Your task to perform on an android device: delete location history Image 0: 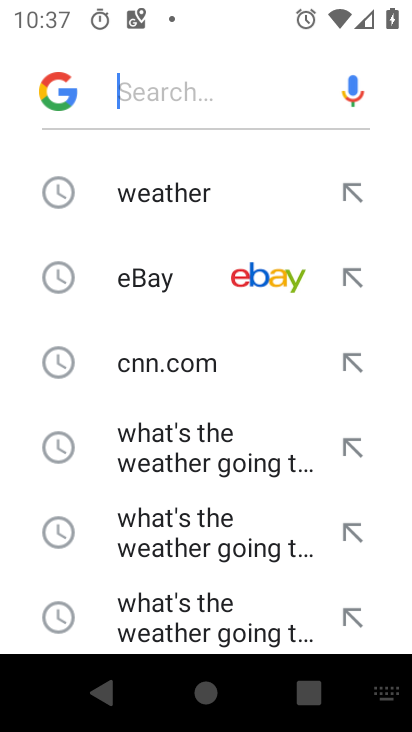
Step 0: press back button
Your task to perform on an android device: delete location history Image 1: 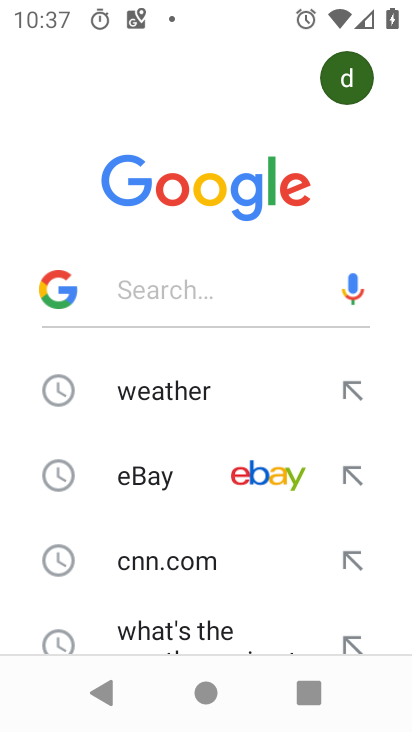
Step 1: press back button
Your task to perform on an android device: delete location history Image 2: 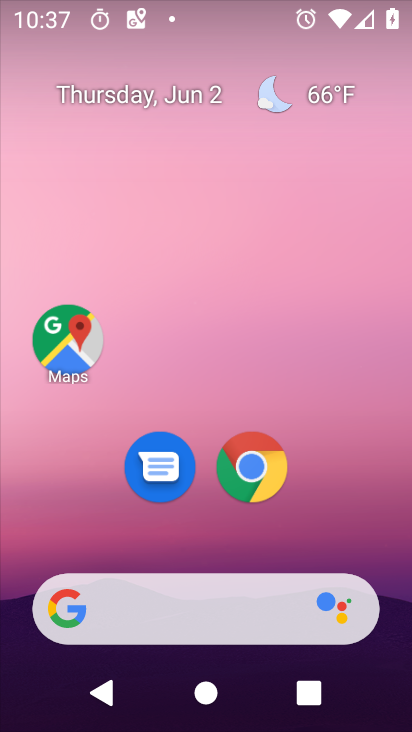
Step 2: drag from (3, 506) to (310, 109)
Your task to perform on an android device: delete location history Image 3: 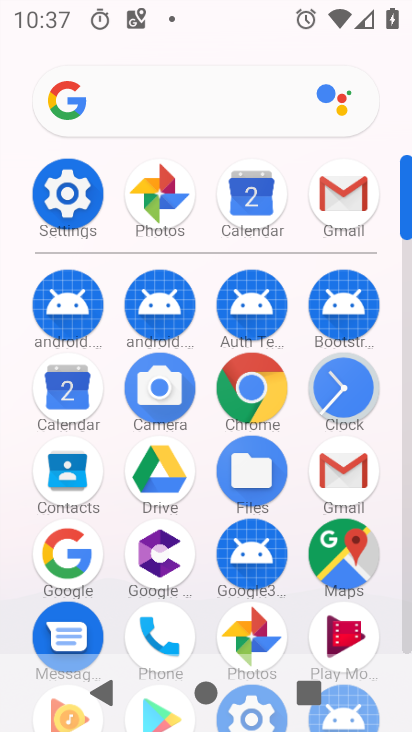
Step 3: click (67, 186)
Your task to perform on an android device: delete location history Image 4: 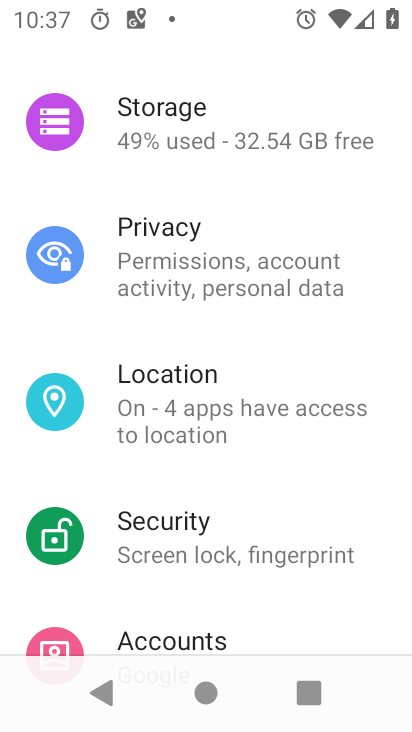
Step 4: click (155, 404)
Your task to perform on an android device: delete location history Image 5: 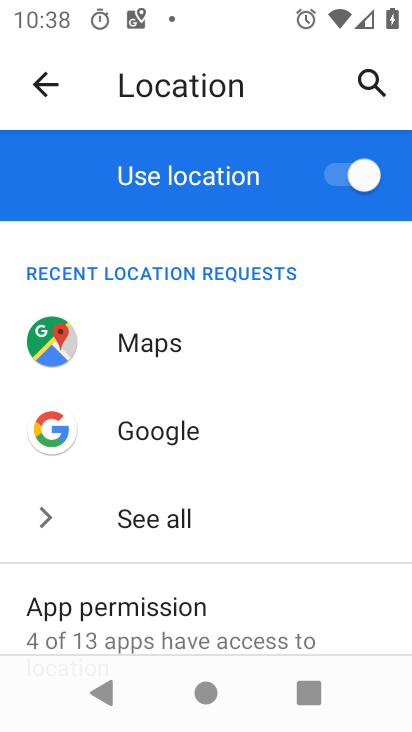
Step 5: drag from (39, 473) to (234, 142)
Your task to perform on an android device: delete location history Image 6: 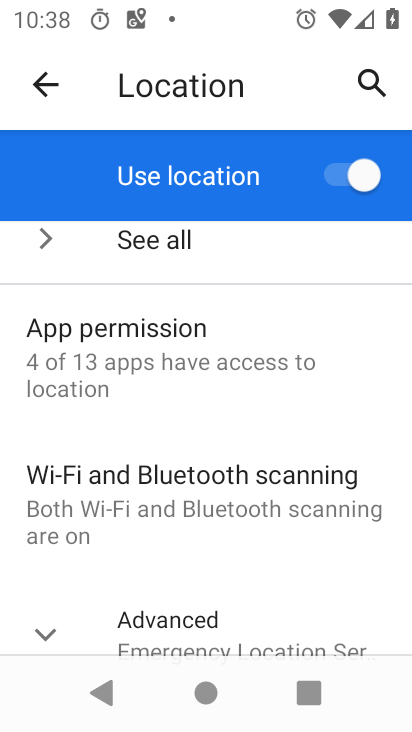
Step 6: click (209, 618)
Your task to perform on an android device: delete location history Image 7: 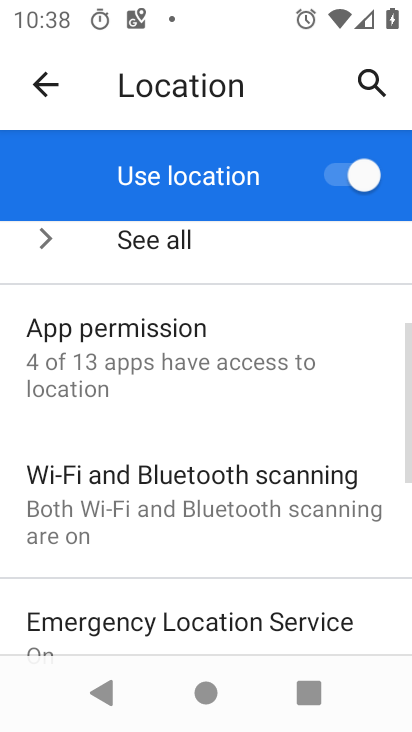
Step 7: drag from (14, 494) to (185, 154)
Your task to perform on an android device: delete location history Image 8: 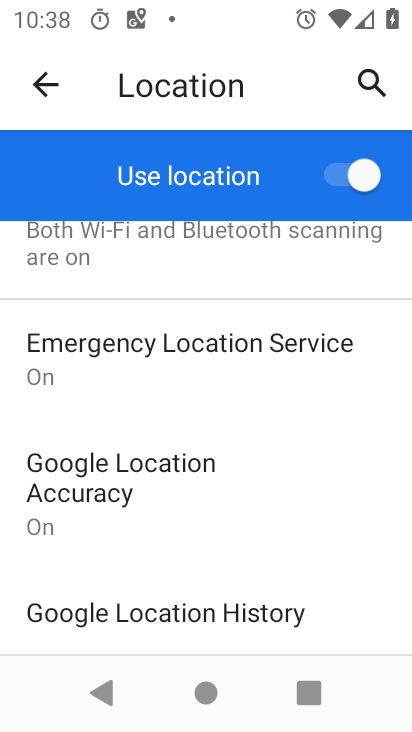
Step 8: click (125, 610)
Your task to perform on an android device: delete location history Image 9: 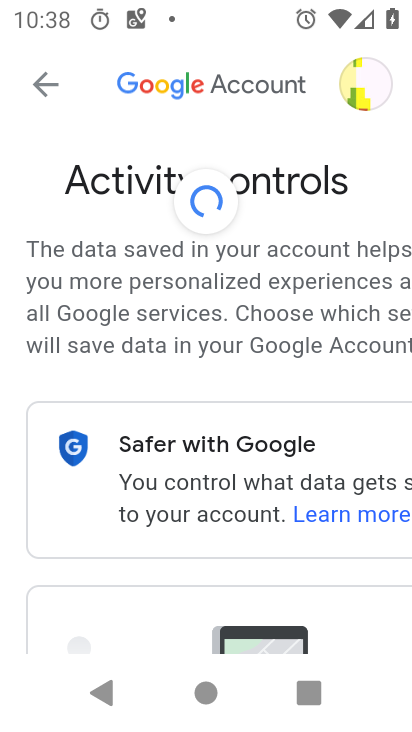
Step 9: task complete